Your task to perform on an android device: Open Google Maps Image 0: 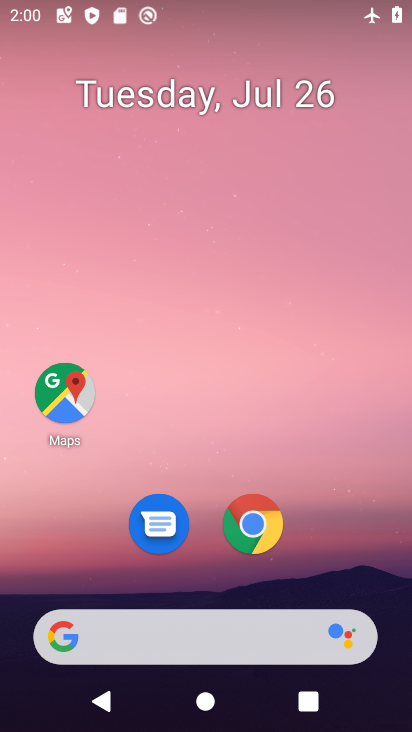
Step 0: click (169, 639)
Your task to perform on an android device: Open Google Maps Image 1: 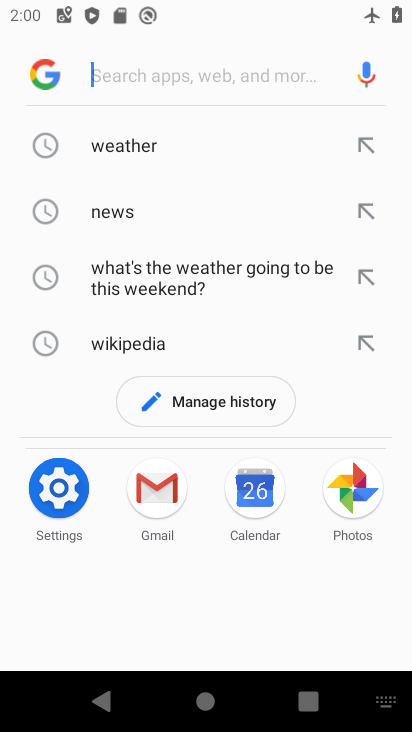
Step 1: click (34, 74)
Your task to perform on an android device: Open Google Maps Image 2: 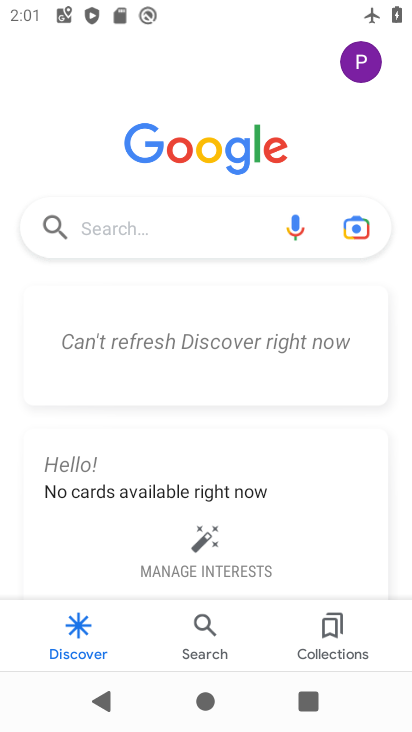
Step 2: task complete